Your task to perform on an android device: turn vacation reply on in the gmail app Image 0: 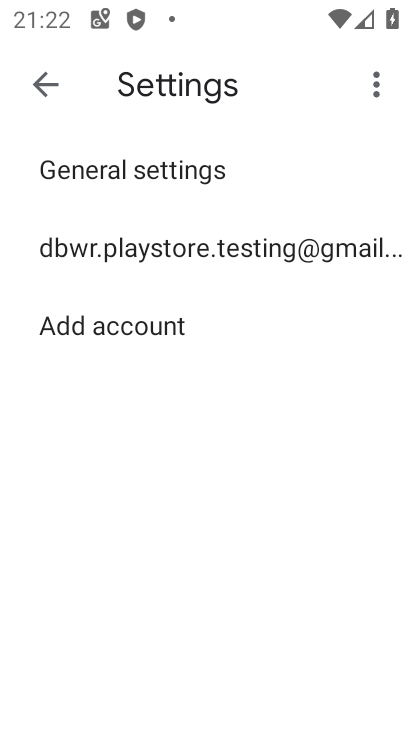
Step 0: press back button
Your task to perform on an android device: turn vacation reply on in the gmail app Image 1: 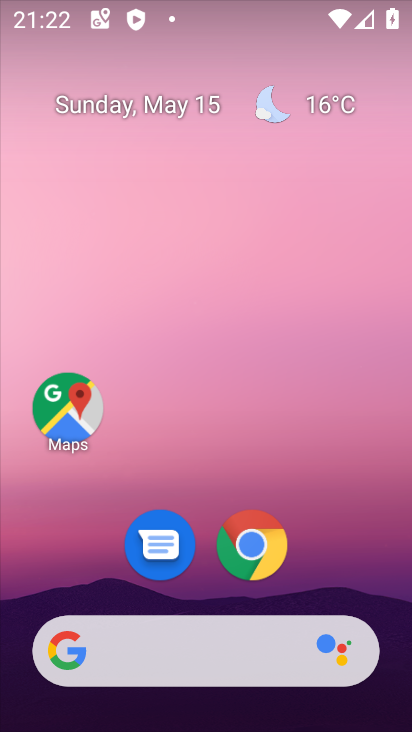
Step 1: drag from (318, 575) to (205, 208)
Your task to perform on an android device: turn vacation reply on in the gmail app Image 2: 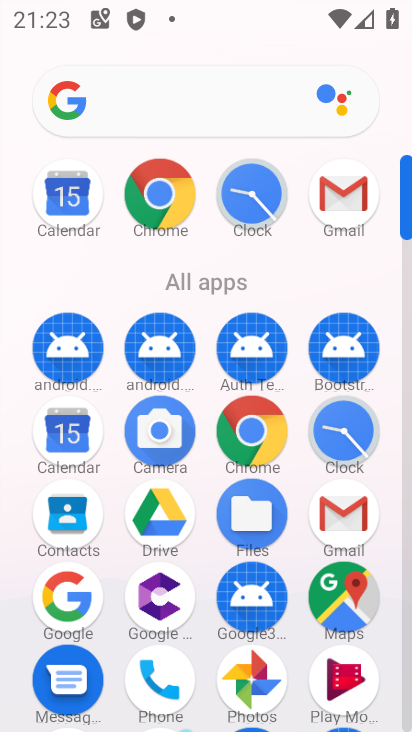
Step 2: click (344, 194)
Your task to perform on an android device: turn vacation reply on in the gmail app Image 3: 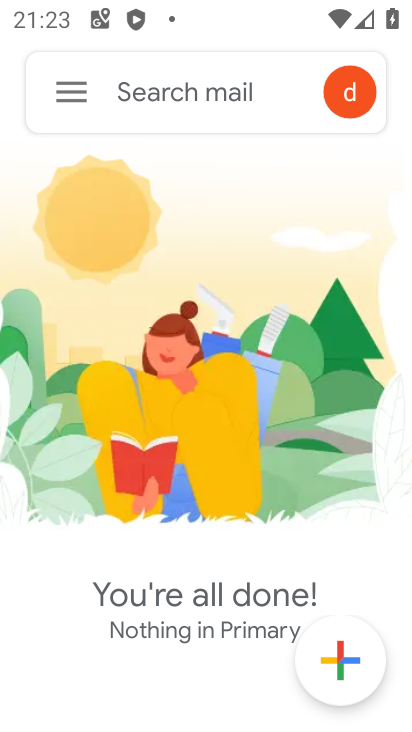
Step 3: click (71, 90)
Your task to perform on an android device: turn vacation reply on in the gmail app Image 4: 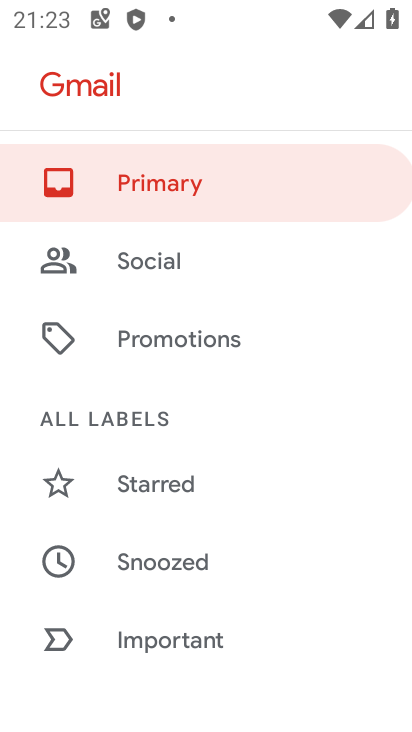
Step 4: drag from (147, 526) to (136, 299)
Your task to perform on an android device: turn vacation reply on in the gmail app Image 5: 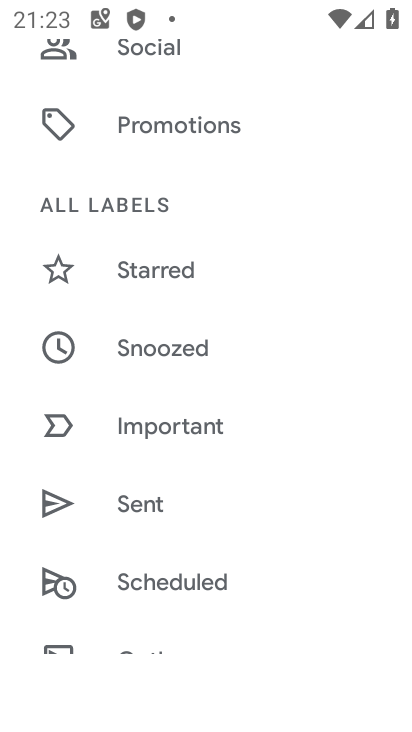
Step 5: drag from (150, 385) to (141, 197)
Your task to perform on an android device: turn vacation reply on in the gmail app Image 6: 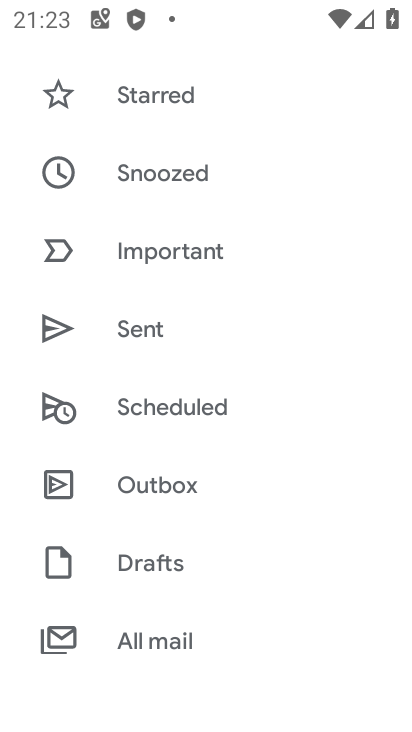
Step 6: drag from (138, 381) to (122, 224)
Your task to perform on an android device: turn vacation reply on in the gmail app Image 7: 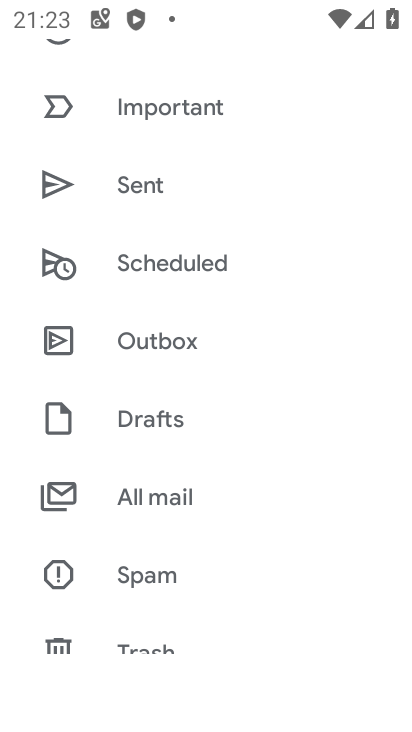
Step 7: drag from (132, 388) to (147, 259)
Your task to perform on an android device: turn vacation reply on in the gmail app Image 8: 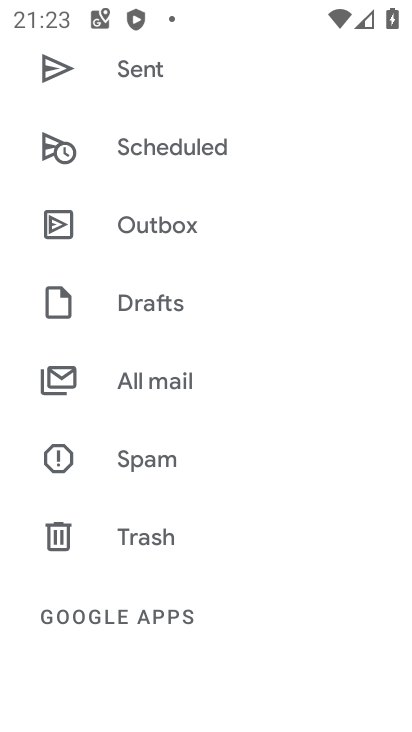
Step 8: drag from (135, 425) to (139, 234)
Your task to perform on an android device: turn vacation reply on in the gmail app Image 9: 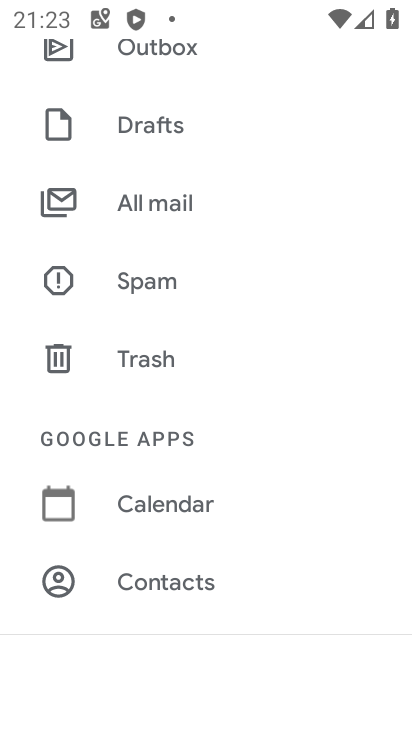
Step 9: drag from (133, 405) to (142, 285)
Your task to perform on an android device: turn vacation reply on in the gmail app Image 10: 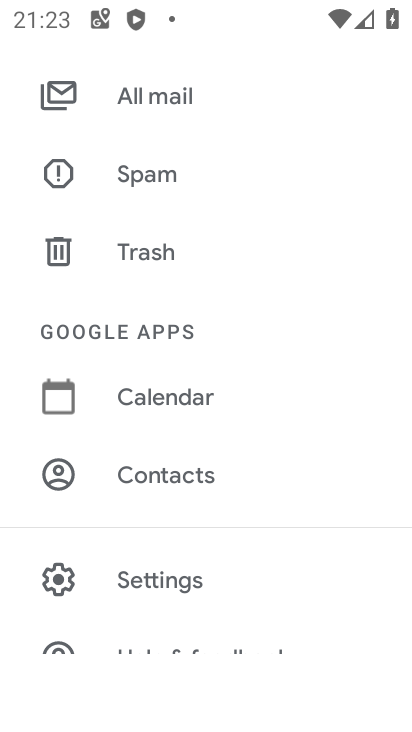
Step 10: drag from (139, 513) to (112, 319)
Your task to perform on an android device: turn vacation reply on in the gmail app Image 11: 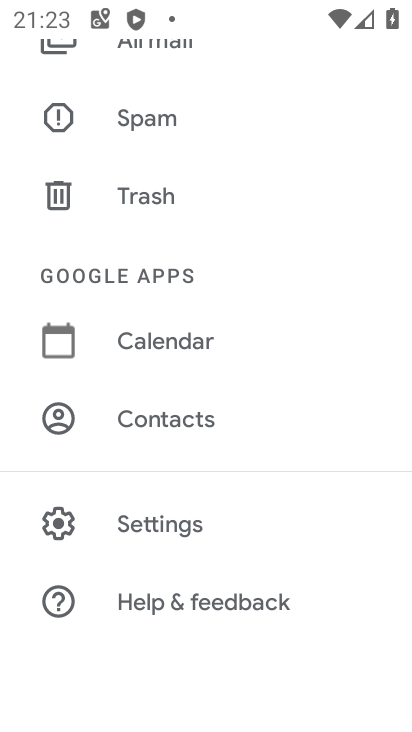
Step 11: click (182, 522)
Your task to perform on an android device: turn vacation reply on in the gmail app Image 12: 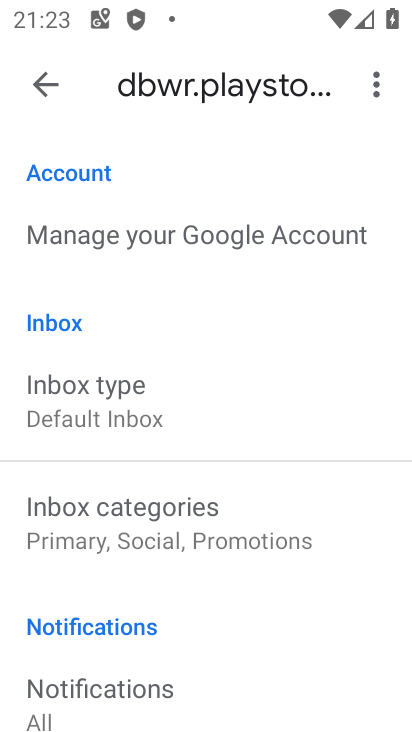
Step 12: drag from (252, 518) to (277, 398)
Your task to perform on an android device: turn vacation reply on in the gmail app Image 13: 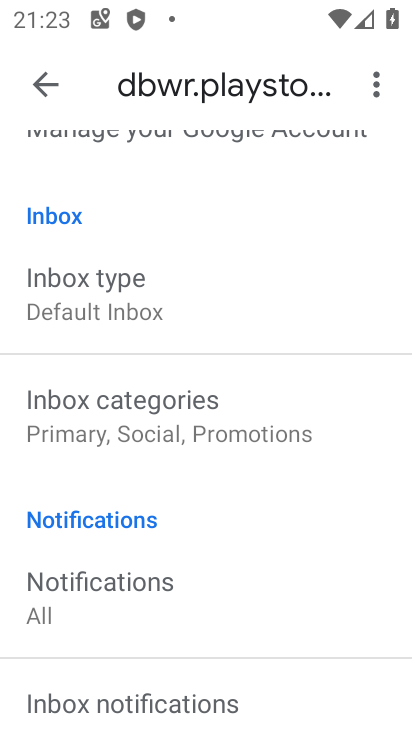
Step 13: drag from (232, 532) to (308, 359)
Your task to perform on an android device: turn vacation reply on in the gmail app Image 14: 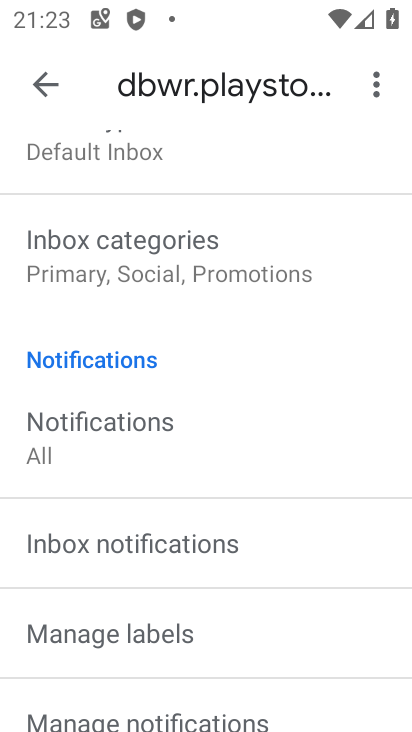
Step 14: drag from (227, 472) to (288, 311)
Your task to perform on an android device: turn vacation reply on in the gmail app Image 15: 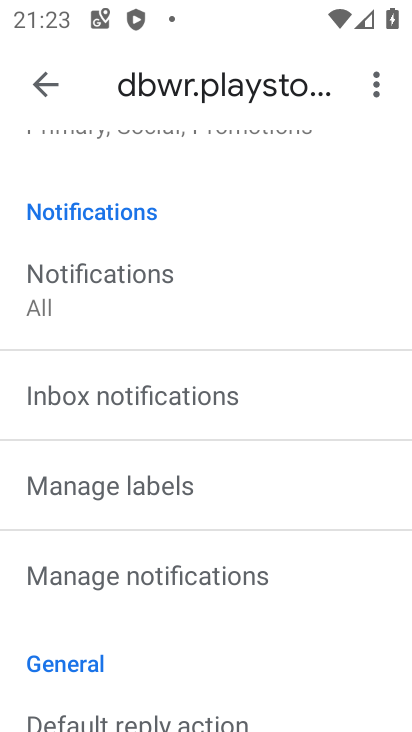
Step 15: drag from (241, 503) to (274, 405)
Your task to perform on an android device: turn vacation reply on in the gmail app Image 16: 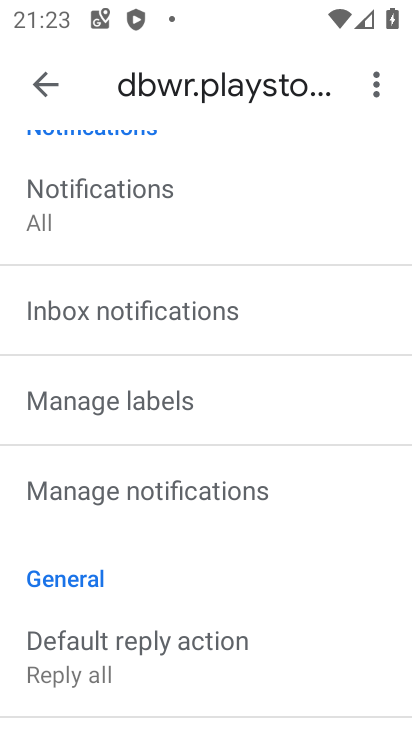
Step 16: drag from (222, 558) to (301, 448)
Your task to perform on an android device: turn vacation reply on in the gmail app Image 17: 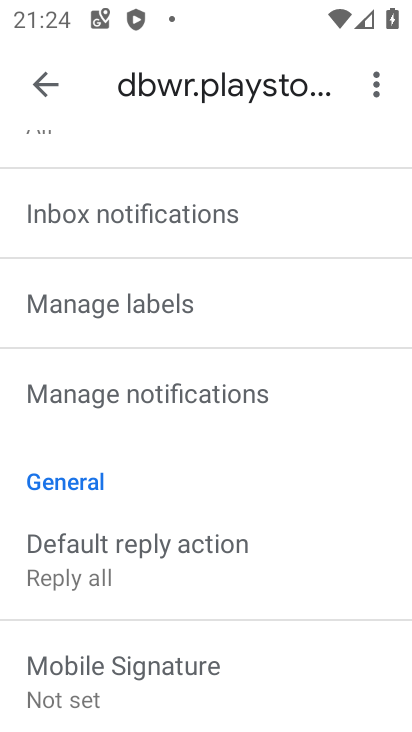
Step 17: drag from (260, 646) to (289, 470)
Your task to perform on an android device: turn vacation reply on in the gmail app Image 18: 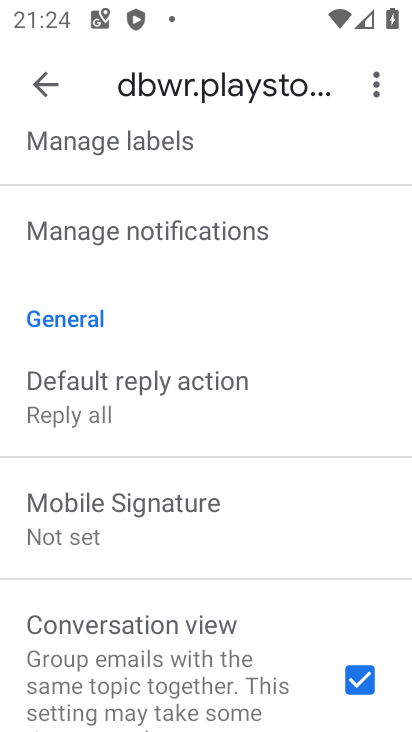
Step 18: drag from (267, 638) to (295, 466)
Your task to perform on an android device: turn vacation reply on in the gmail app Image 19: 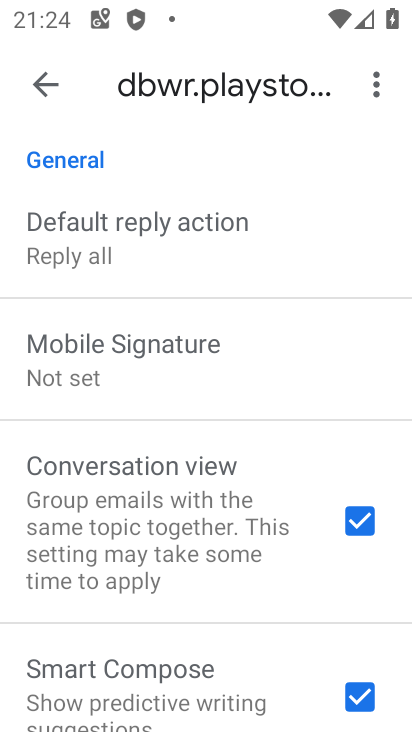
Step 19: drag from (268, 621) to (316, 495)
Your task to perform on an android device: turn vacation reply on in the gmail app Image 20: 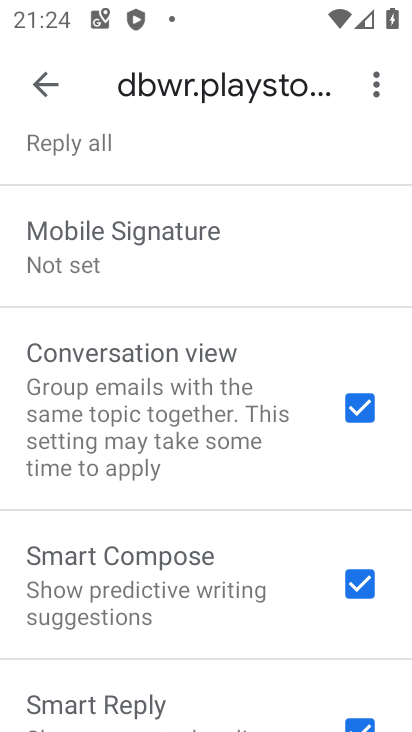
Step 20: drag from (222, 637) to (244, 515)
Your task to perform on an android device: turn vacation reply on in the gmail app Image 21: 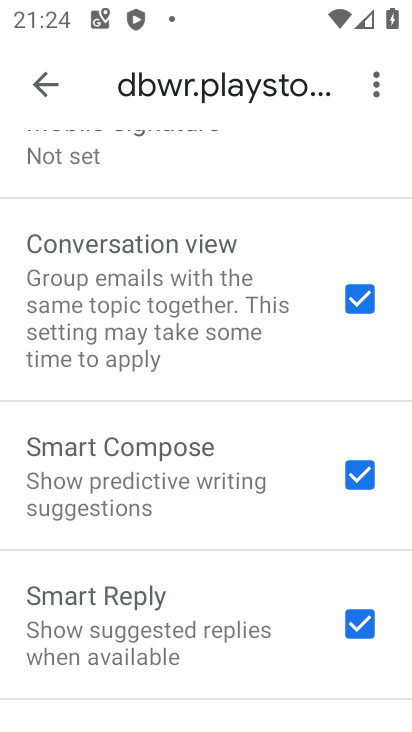
Step 21: drag from (225, 593) to (265, 468)
Your task to perform on an android device: turn vacation reply on in the gmail app Image 22: 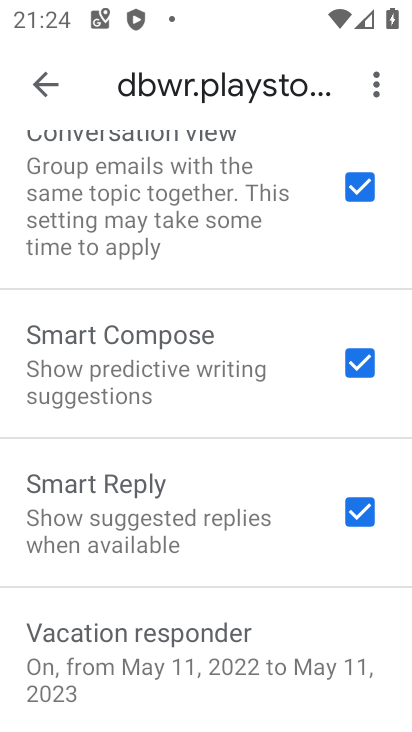
Step 22: click (203, 627)
Your task to perform on an android device: turn vacation reply on in the gmail app Image 23: 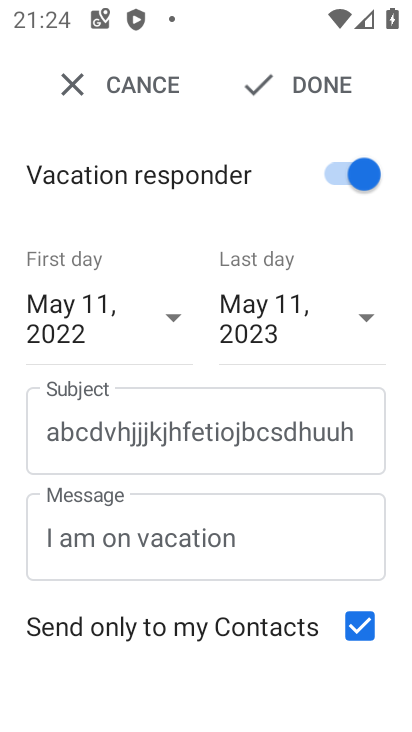
Step 23: task complete